Your task to perform on an android device: Open eBay Image 0: 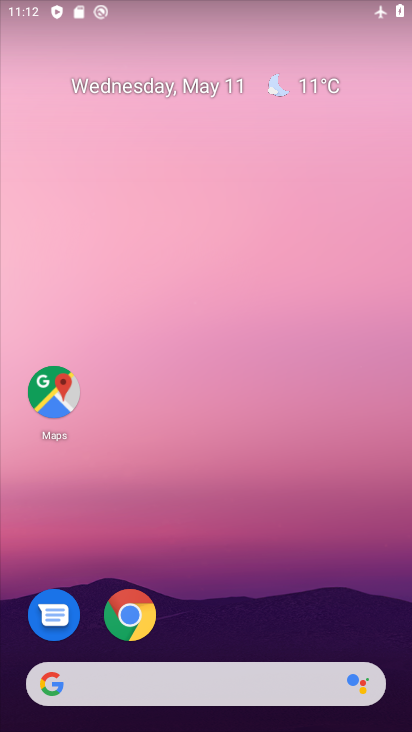
Step 0: click (124, 619)
Your task to perform on an android device: Open eBay Image 1: 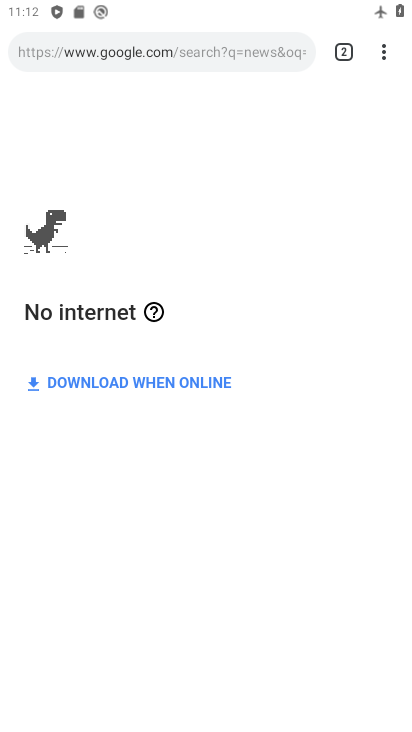
Step 1: click (183, 51)
Your task to perform on an android device: Open eBay Image 2: 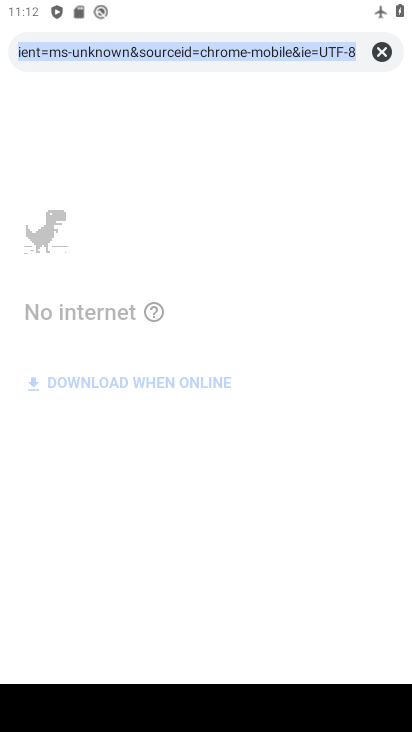
Step 2: type "ebay"
Your task to perform on an android device: Open eBay Image 3: 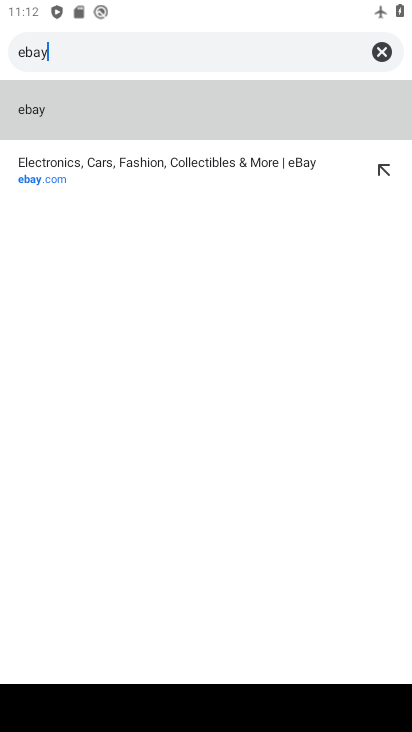
Step 3: click (62, 178)
Your task to perform on an android device: Open eBay Image 4: 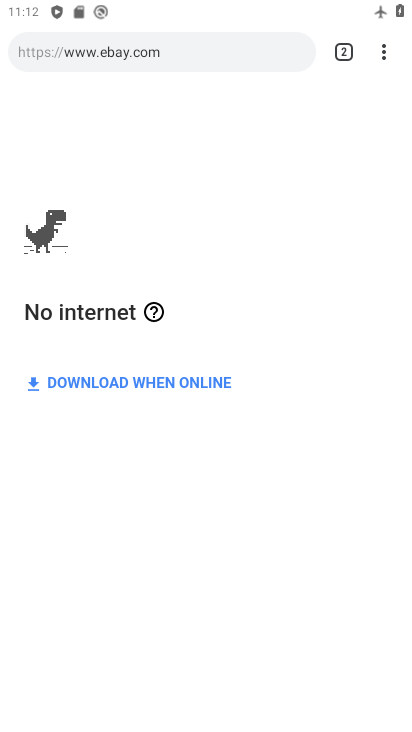
Step 4: task complete